Your task to perform on an android device: Clear all items from cart on walmart. Search for "usb-c" on walmart, select the first entry, and add it to the cart. Image 0: 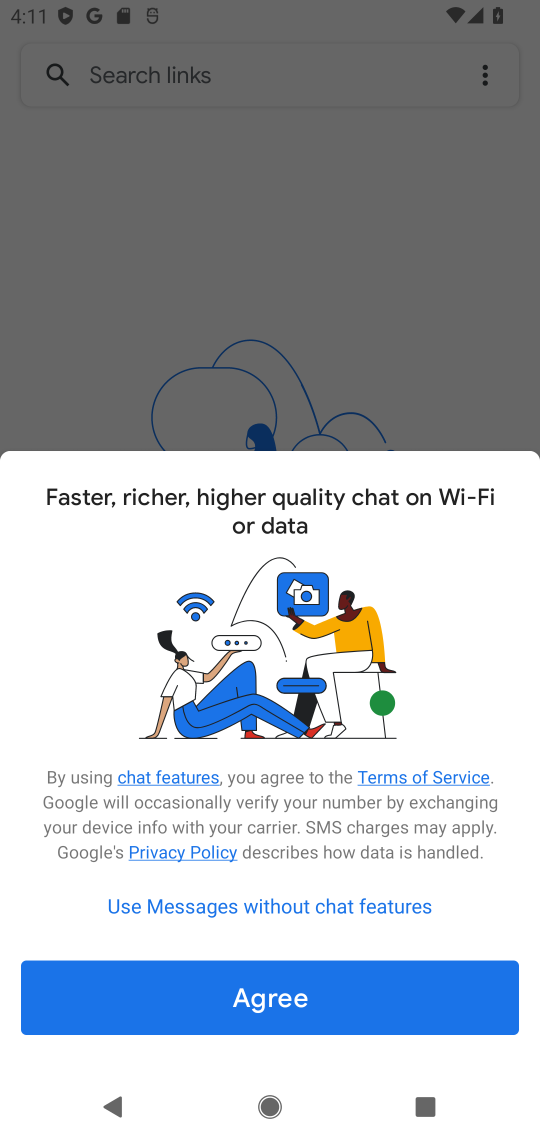
Step 0: press home button
Your task to perform on an android device: Clear all items from cart on walmart. Search for "usb-c" on walmart, select the first entry, and add it to the cart. Image 1: 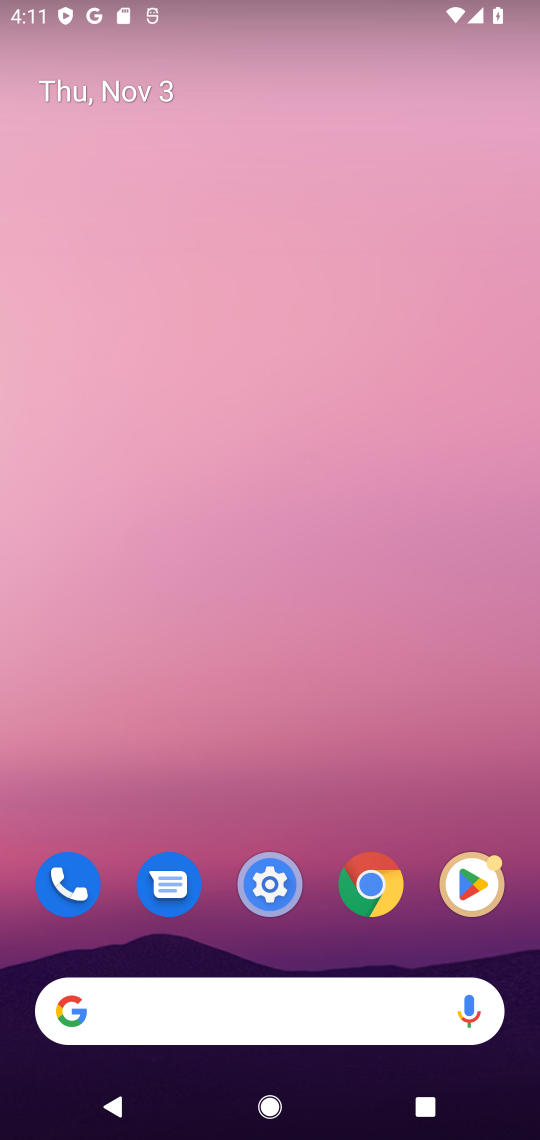
Step 1: click (109, 1001)
Your task to perform on an android device: Clear all items from cart on walmart. Search for "usb-c" on walmart, select the first entry, and add it to the cart. Image 2: 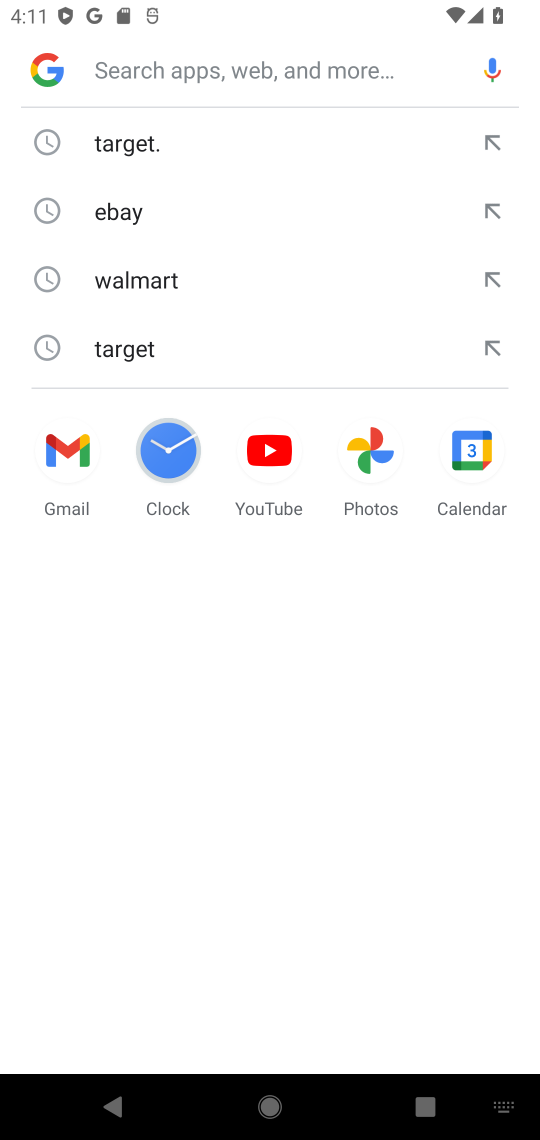
Step 2: type "walmart"
Your task to perform on an android device: Clear all items from cart on walmart. Search for "usb-c" on walmart, select the first entry, and add it to the cart. Image 3: 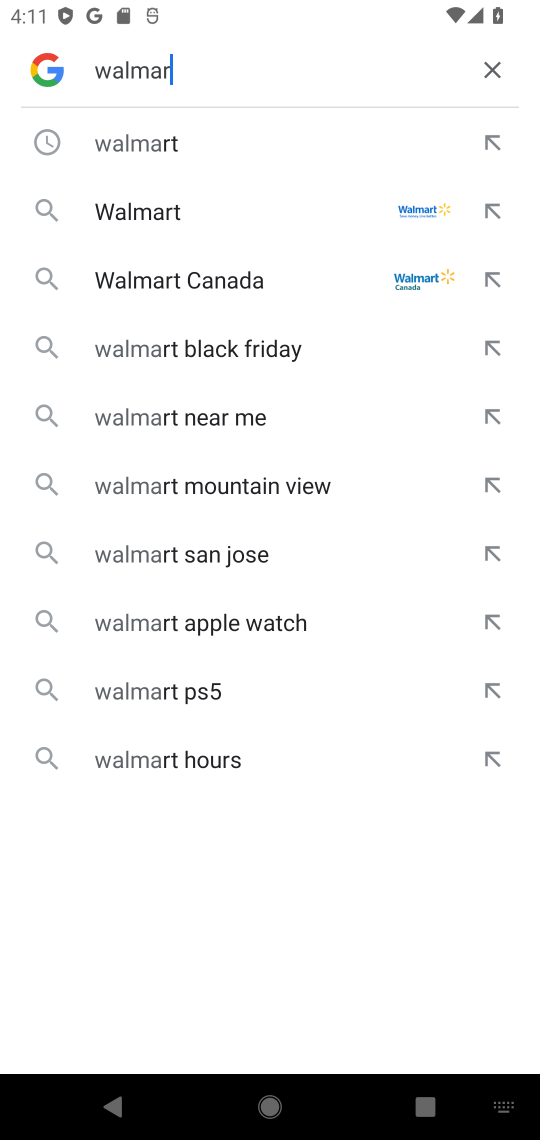
Step 3: press enter
Your task to perform on an android device: Clear all items from cart on walmart. Search for "usb-c" on walmart, select the first entry, and add it to the cart. Image 4: 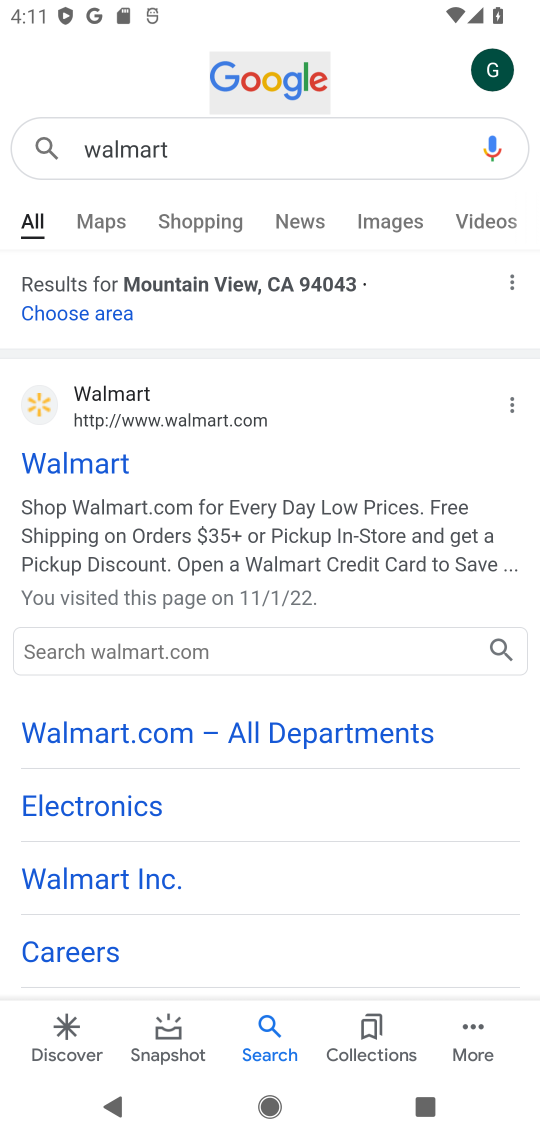
Step 4: click (94, 470)
Your task to perform on an android device: Clear all items from cart on walmart. Search for "usb-c" on walmart, select the first entry, and add it to the cart. Image 5: 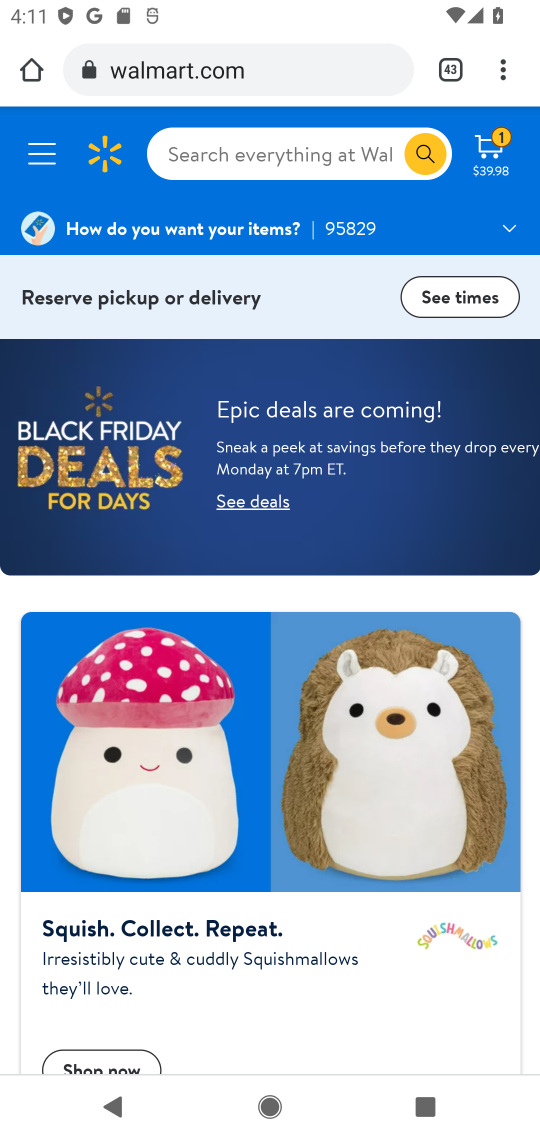
Step 5: click (490, 145)
Your task to perform on an android device: Clear all items from cart on walmart. Search for "usb-c" on walmart, select the first entry, and add it to the cart. Image 6: 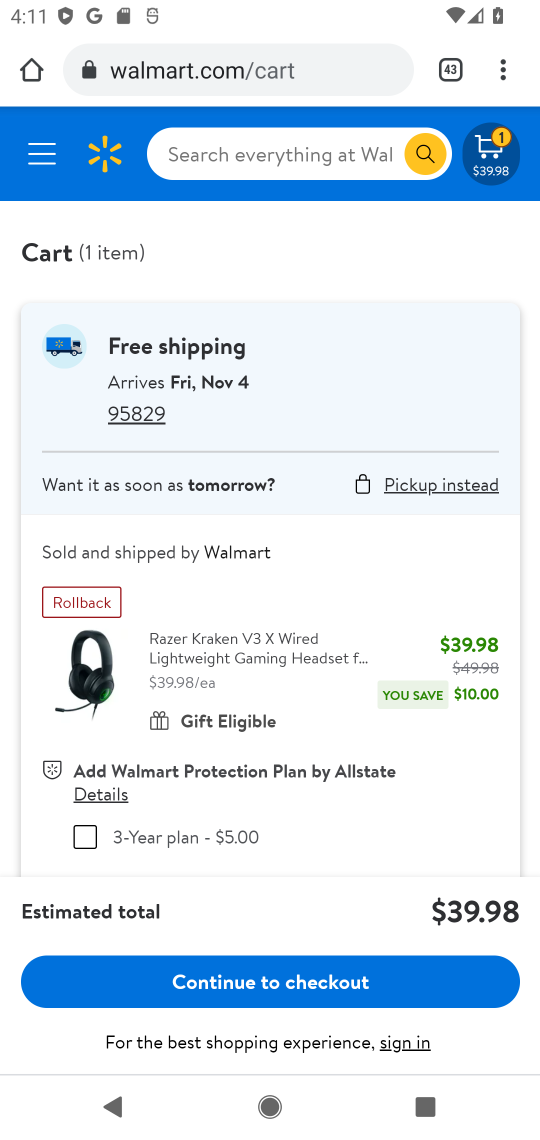
Step 6: drag from (330, 825) to (332, 505)
Your task to perform on an android device: Clear all items from cart on walmart. Search for "usb-c" on walmart, select the first entry, and add it to the cart. Image 7: 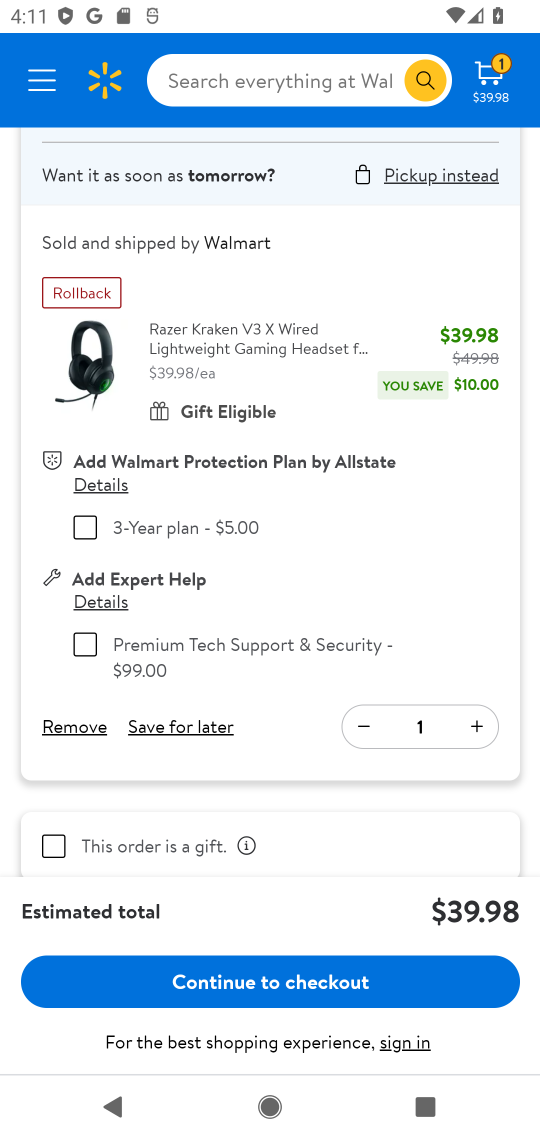
Step 7: click (67, 728)
Your task to perform on an android device: Clear all items from cart on walmart. Search for "usb-c" on walmart, select the first entry, and add it to the cart. Image 8: 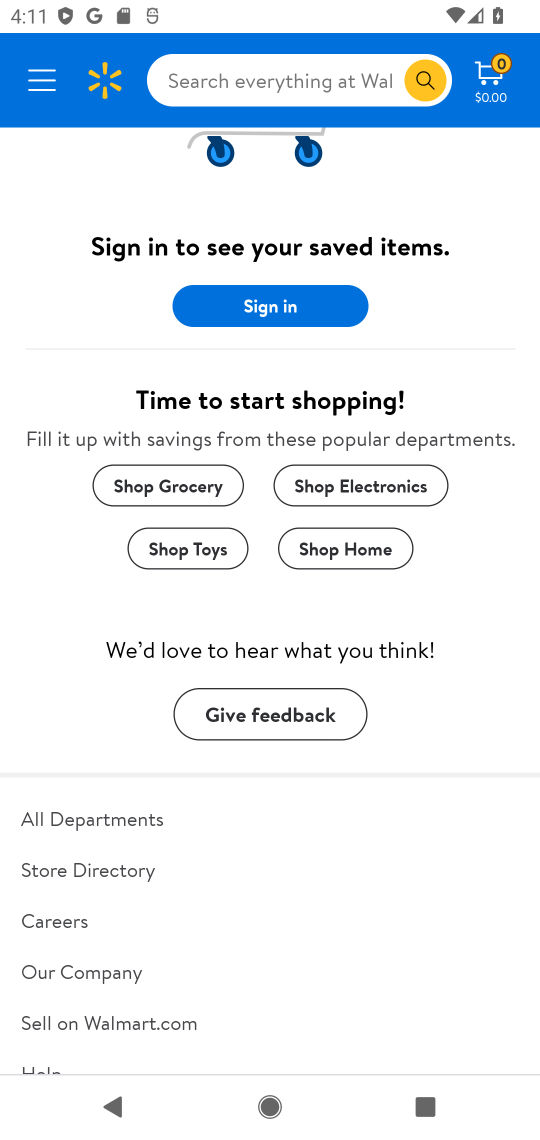
Step 8: click (221, 76)
Your task to perform on an android device: Clear all items from cart on walmart. Search for "usb-c" on walmart, select the first entry, and add it to the cart. Image 9: 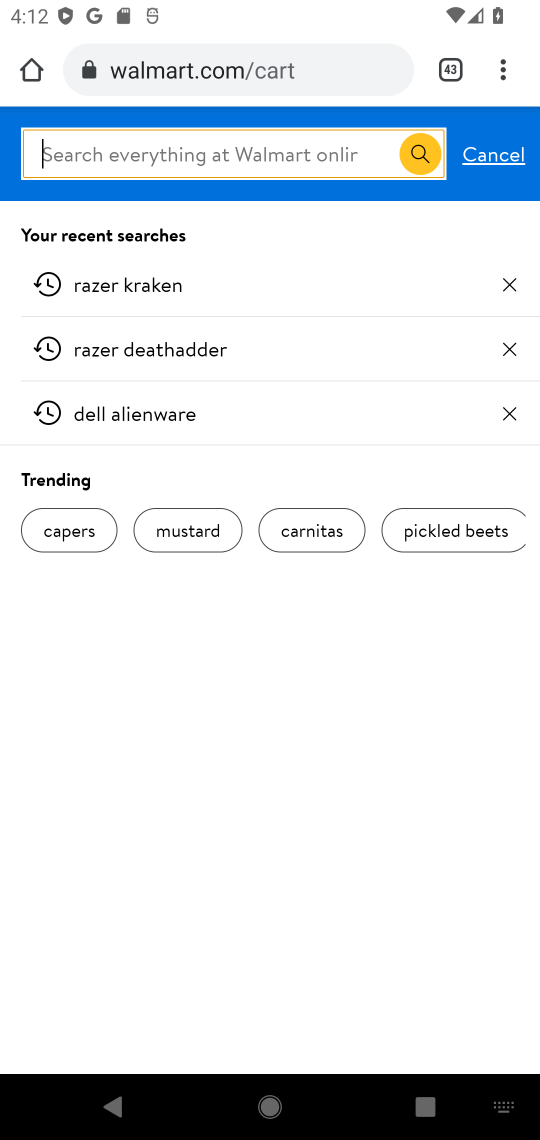
Step 9: type "usb c"
Your task to perform on an android device: Clear all items from cart on walmart. Search for "usb-c" on walmart, select the first entry, and add it to the cart. Image 10: 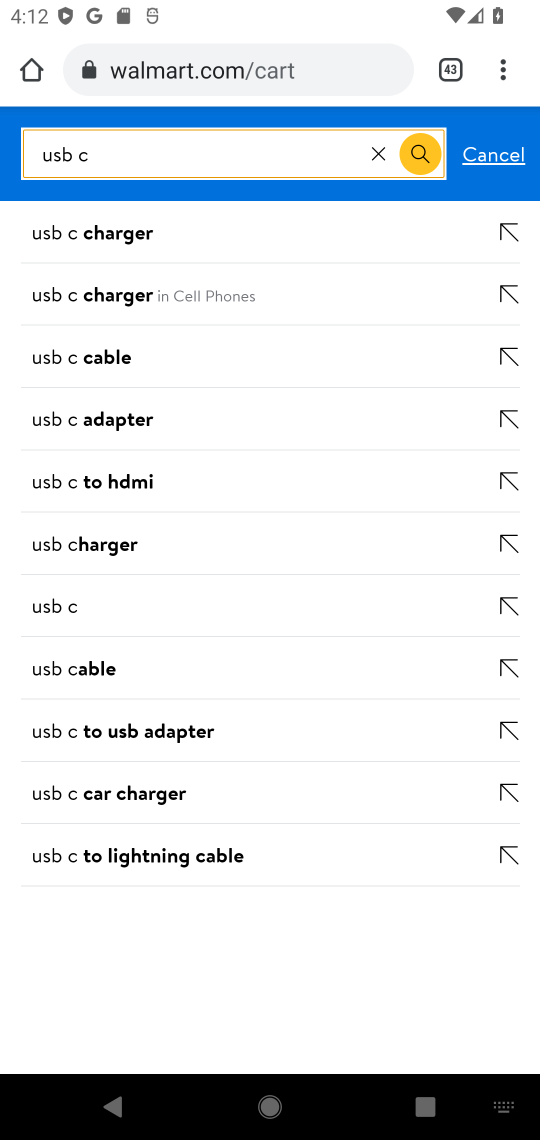
Step 10: press enter
Your task to perform on an android device: Clear all items from cart on walmart. Search for "usb-c" on walmart, select the first entry, and add it to the cart. Image 11: 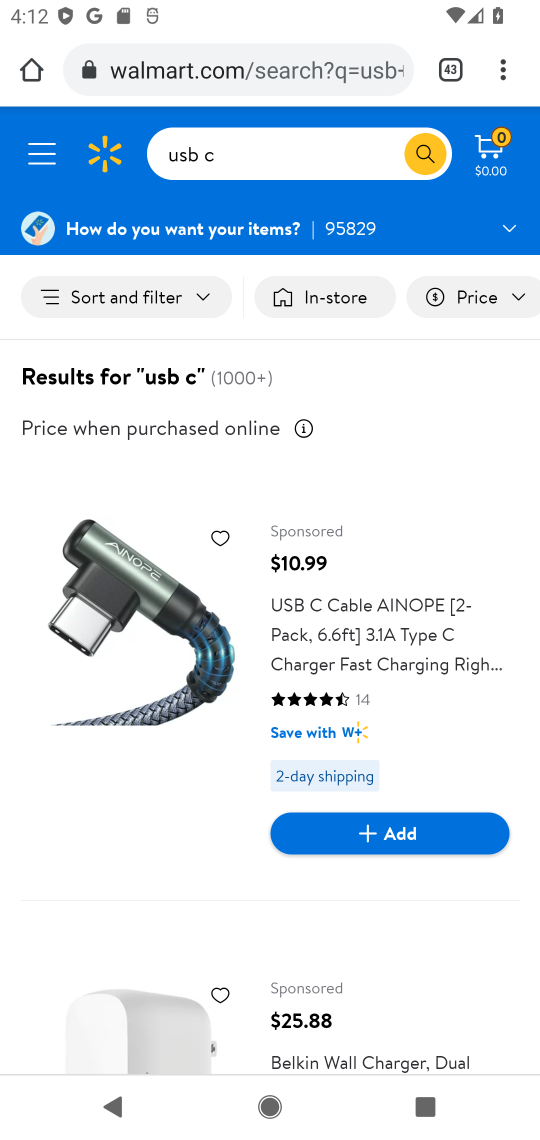
Step 11: click (393, 826)
Your task to perform on an android device: Clear all items from cart on walmart. Search for "usb-c" on walmart, select the first entry, and add it to the cart. Image 12: 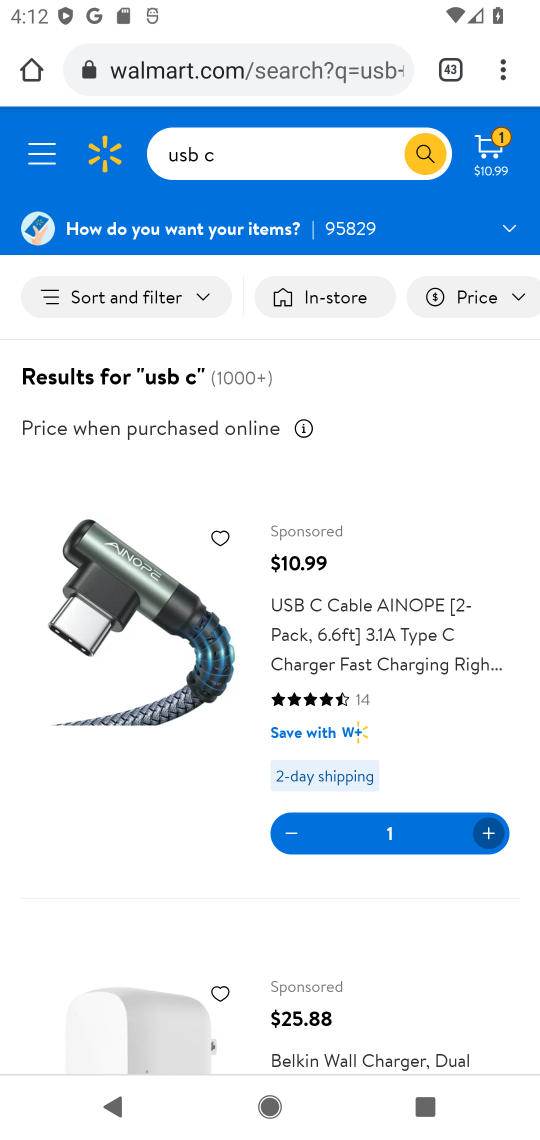
Step 12: task complete